Your task to perform on an android device: find which apps use the phone's location Image 0: 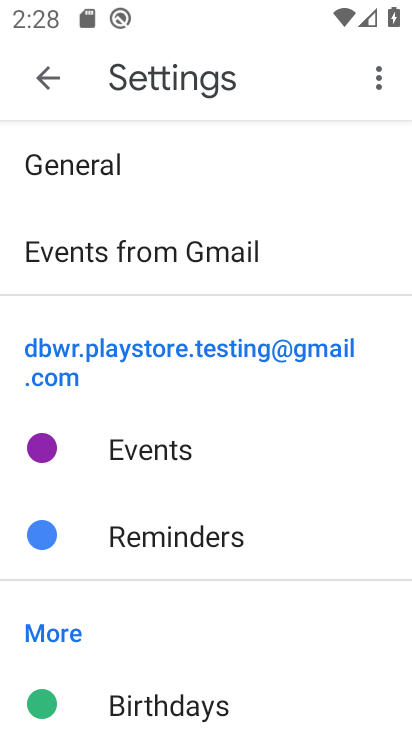
Step 0: press home button
Your task to perform on an android device: find which apps use the phone's location Image 1: 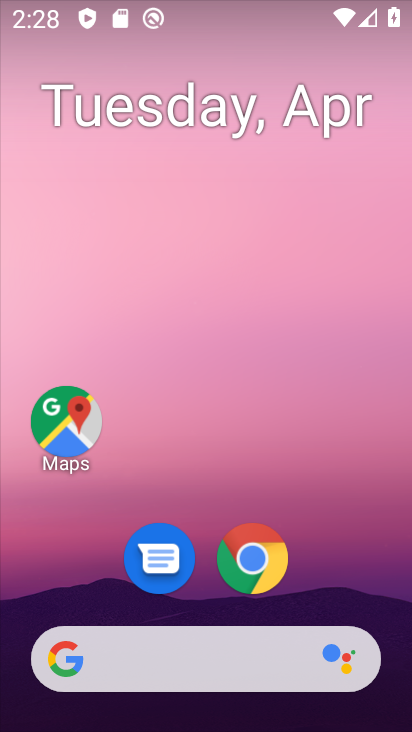
Step 1: drag from (206, 578) to (317, 23)
Your task to perform on an android device: find which apps use the phone's location Image 2: 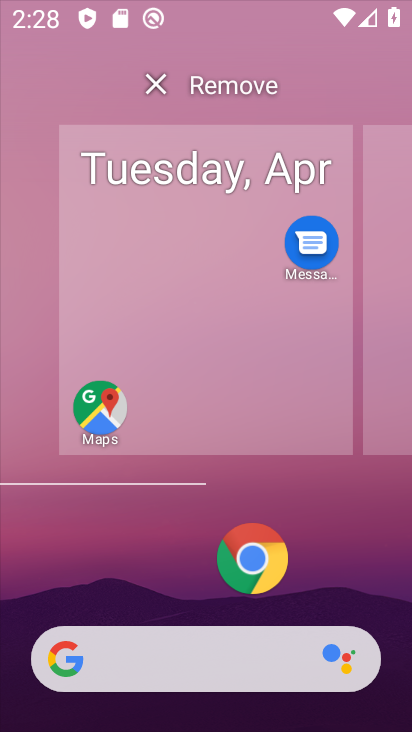
Step 2: drag from (185, 591) to (283, 49)
Your task to perform on an android device: find which apps use the phone's location Image 3: 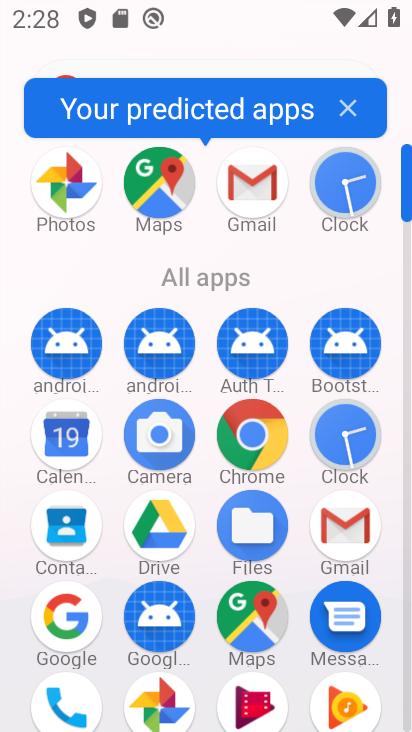
Step 3: drag from (175, 399) to (167, 96)
Your task to perform on an android device: find which apps use the phone's location Image 4: 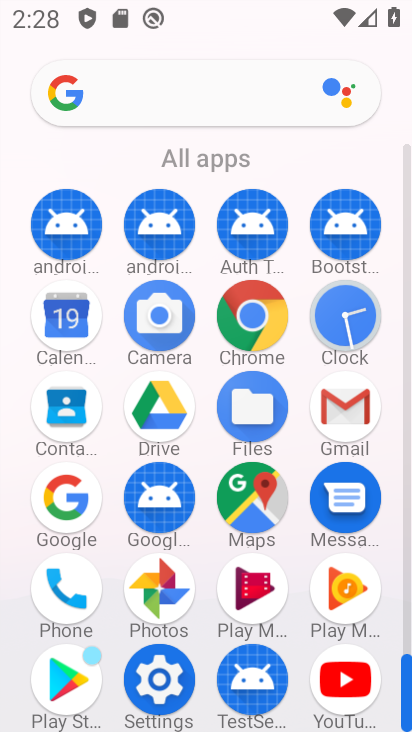
Step 4: click (145, 684)
Your task to perform on an android device: find which apps use the phone's location Image 5: 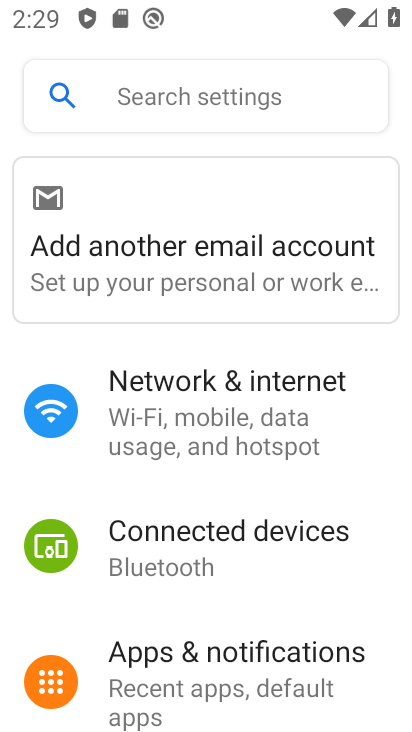
Step 5: drag from (240, 577) to (165, 46)
Your task to perform on an android device: find which apps use the phone's location Image 6: 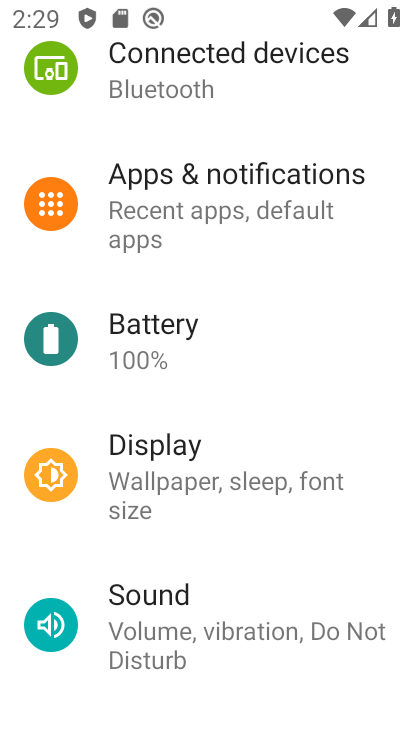
Step 6: drag from (198, 675) to (113, 57)
Your task to perform on an android device: find which apps use the phone's location Image 7: 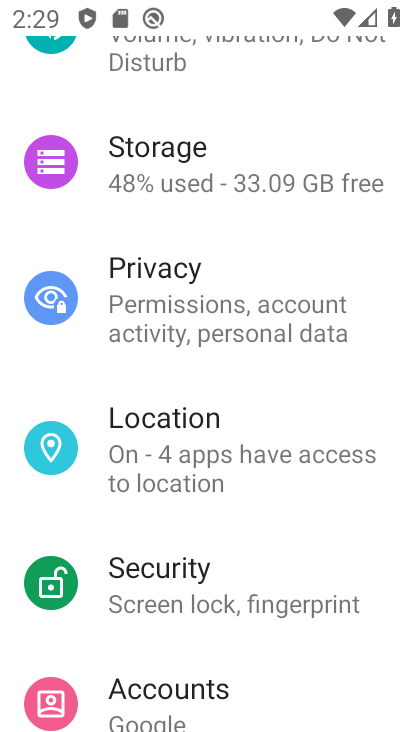
Step 7: click (137, 418)
Your task to perform on an android device: find which apps use the phone's location Image 8: 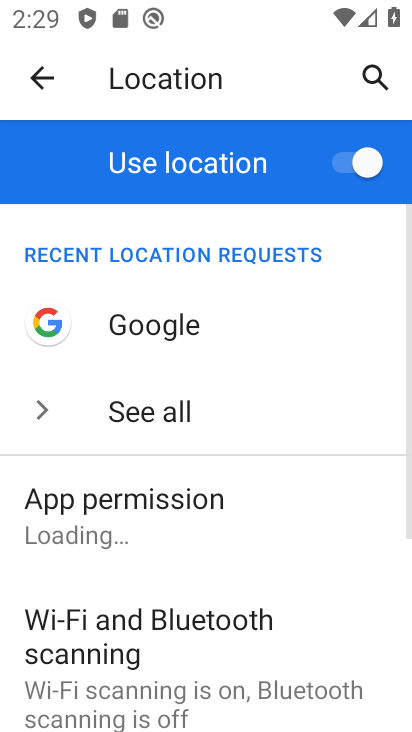
Step 8: click (135, 525)
Your task to perform on an android device: find which apps use the phone's location Image 9: 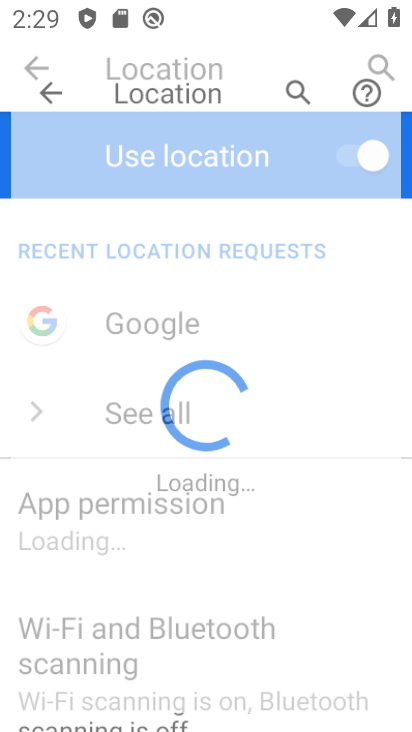
Step 9: task complete